Your task to perform on an android device: create a new album in the google photos Image 0: 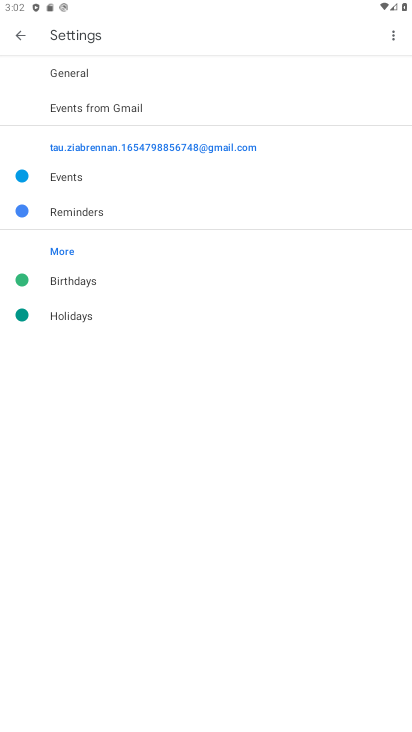
Step 0: click (17, 33)
Your task to perform on an android device: create a new album in the google photos Image 1: 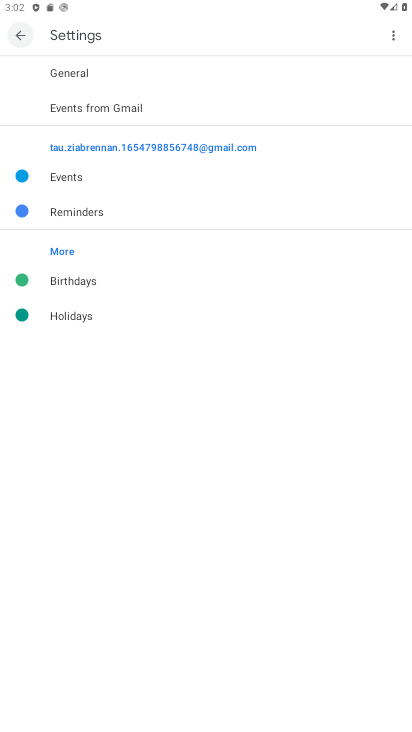
Step 1: click (17, 33)
Your task to perform on an android device: create a new album in the google photos Image 2: 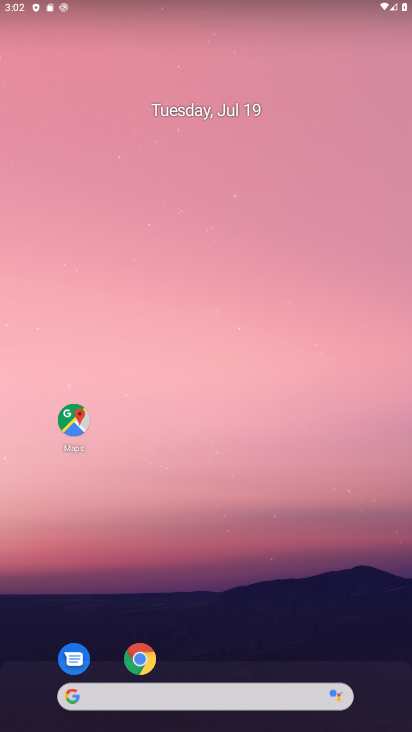
Step 2: drag from (161, 687) to (175, 11)
Your task to perform on an android device: create a new album in the google photos Image 3: 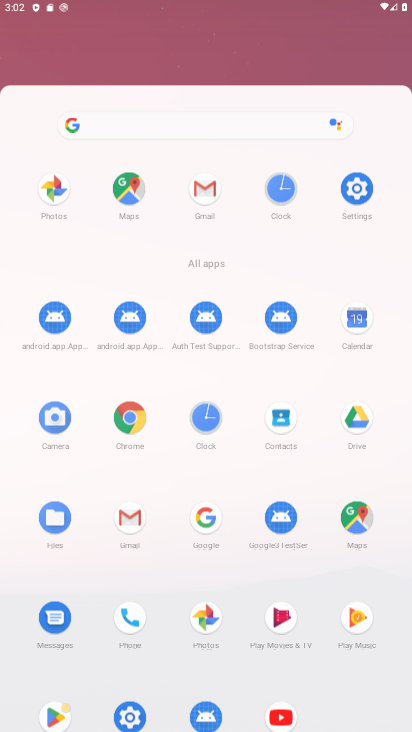
Step 3: drag from (247, 490) to (221, 197)
Your task to perform on an android device: create a new album in the google photos Image 4: 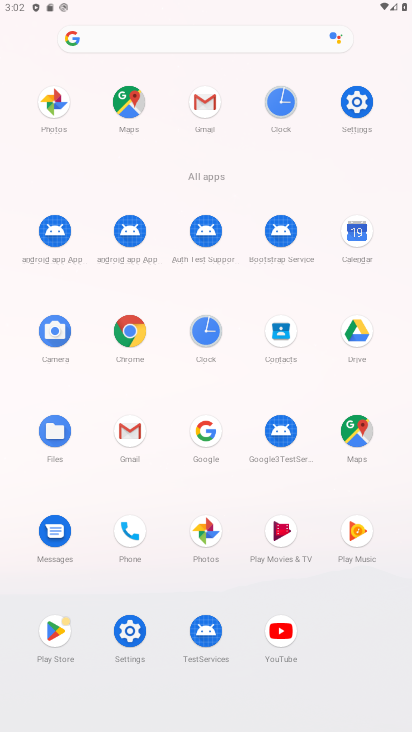
Step 4: drag from (221, 391) to (206, 165)
Your task to perform on an android device: create a new album in the google photos Image 5: 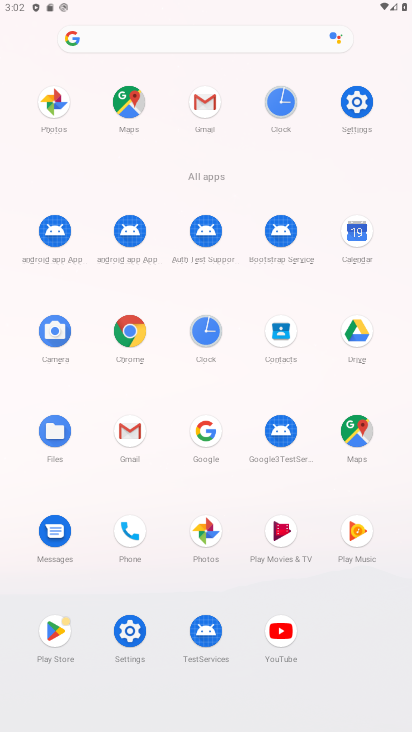
Step 5: click (205, 531)
Your task to perform on an android device: create a new album in the google photos Image 6: 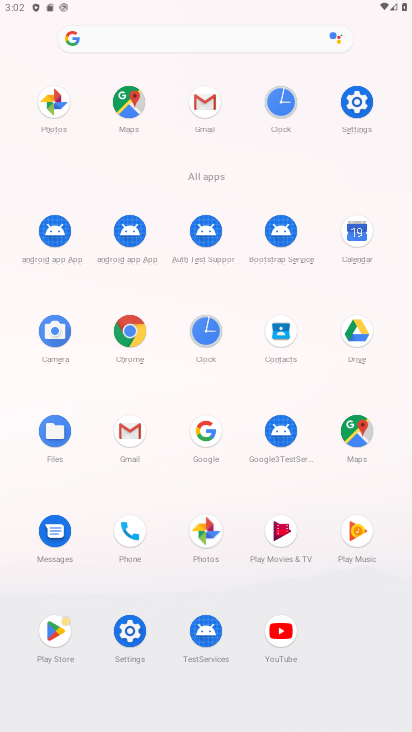
Step 6: click (204, 531)
Your task to perform on an android device: create a new album in the google photos Image 7: 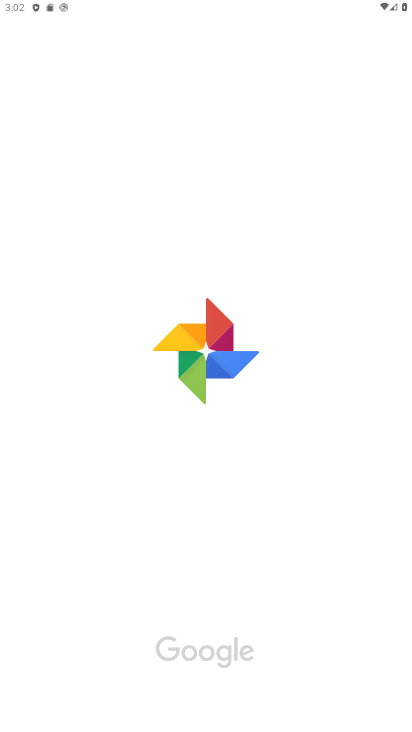
Step 7: click (205, 517)
Your task to perform on an android device: create a new album in the google photos Image 8: 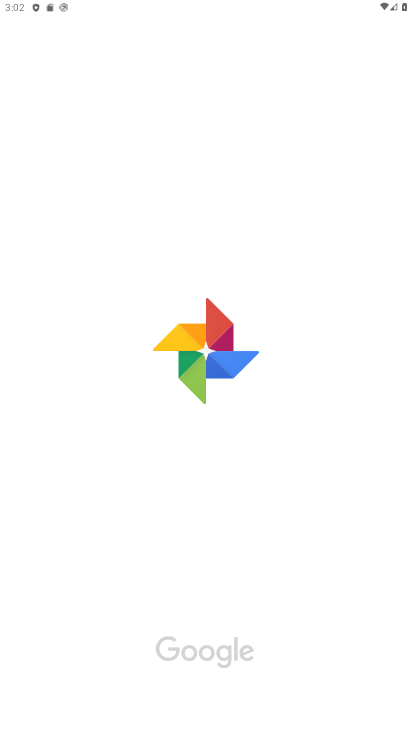
Step 8: click (204, 522)
Your task to perform on an android device: create a new album in the google photos Image 9: 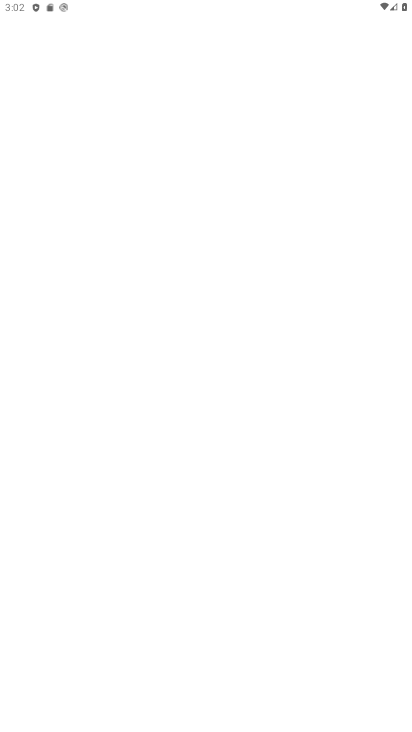
Step 9: click (202, 524)
Your task to perform on an android device: create a new album in the google photos Image 10: 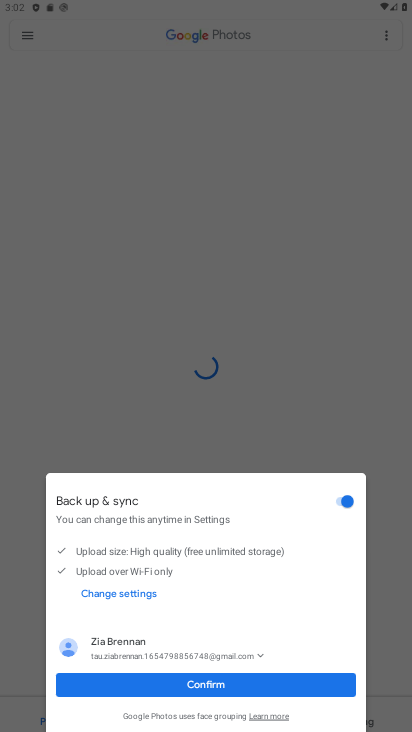
Step 10: click (223, 692)
Your task to perform on an android device: create a new album in the google photos Image 11: 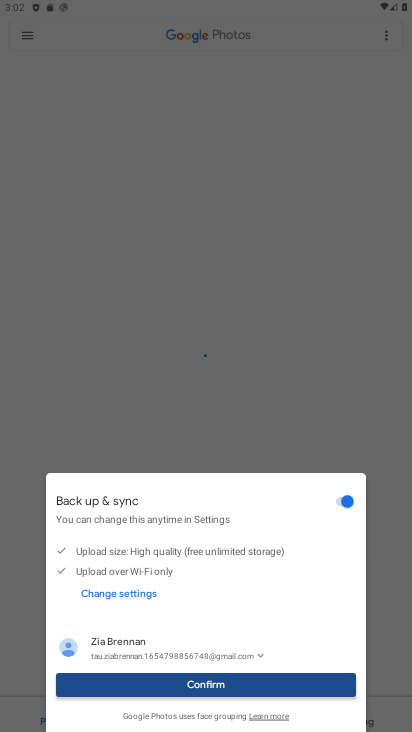
Step 11: click (231, 688)
Your task to perform on an android device: create a new album in the google photos Image 12: 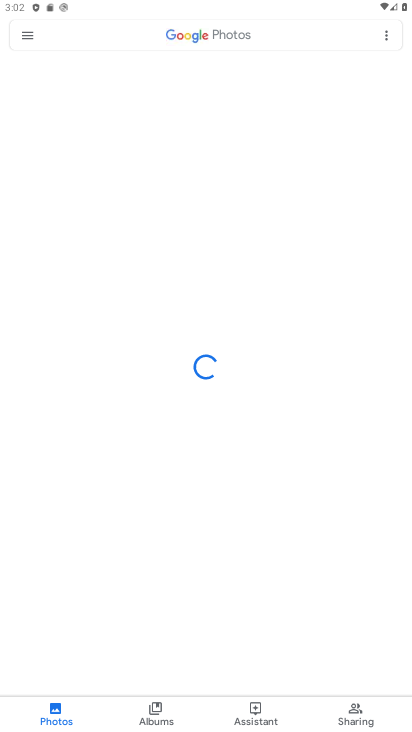
Step 12: click (234, 690)
Your task to perform on an android device: create a new album in the google photos Image 13: 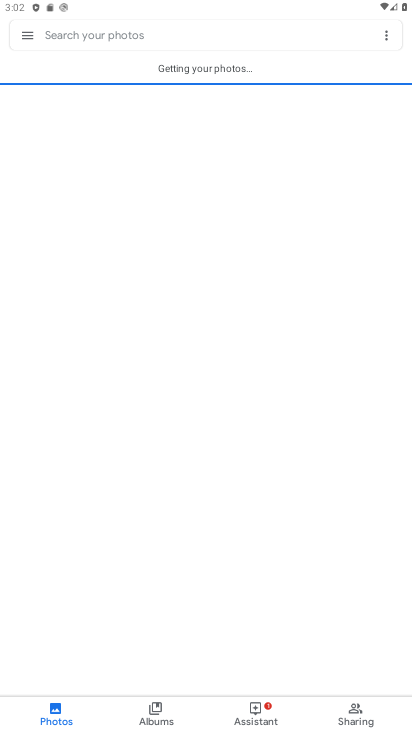
Step 13: click (160, 711)
Your task to perform on an android device: create a new album in the google photos Image 14: 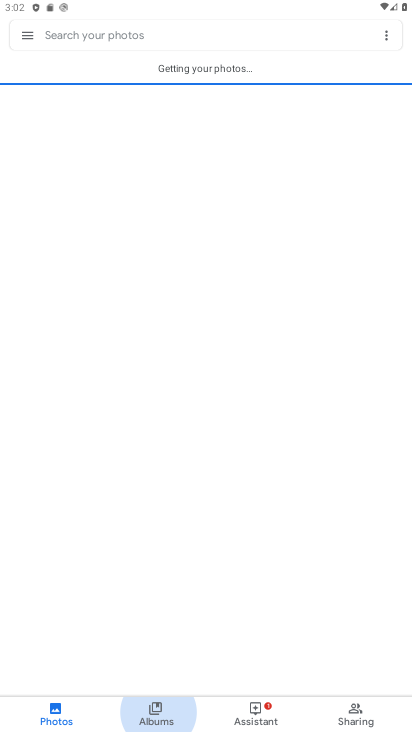
Step 14: click (160, 711)
Your task to perform on an android device: create a new album in the google photos Image 15: 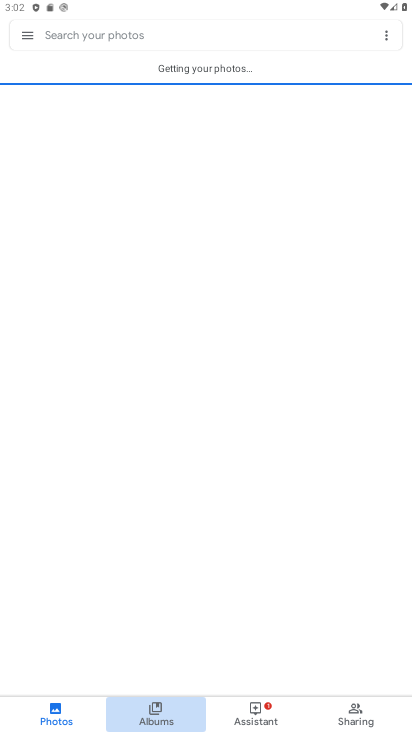
Step 15: click (160, 711)
Your task to perform on an android device: create a new album in the google photos Image 16: 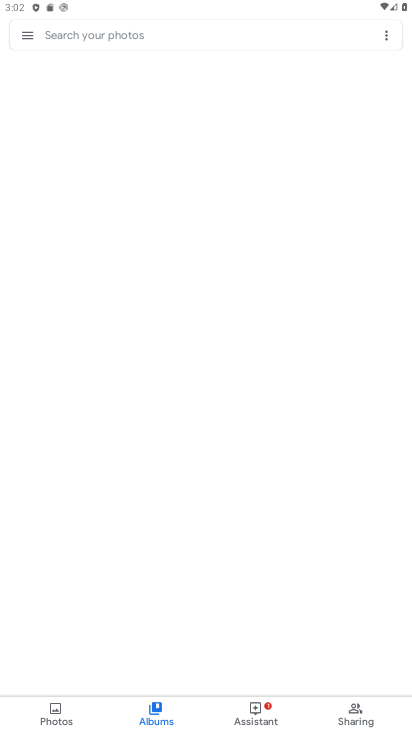
Step 16: click (159, 713)
Your task to perform on an android device: create a new album in the google photos Image 17: 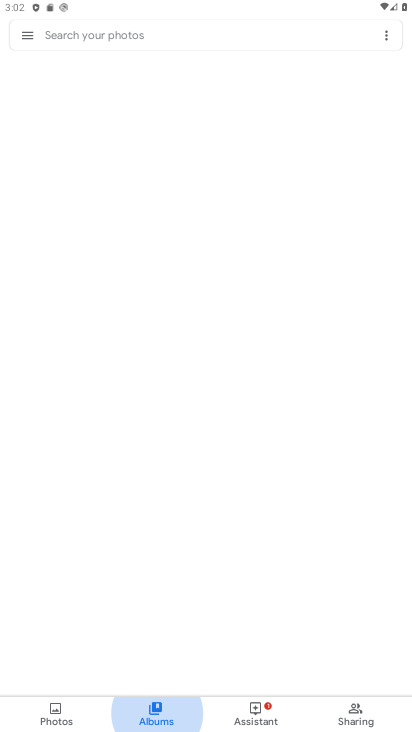
Step 17: click (160, 714)
Your task to perform on an android device: create a new album in the google photos Image 18: 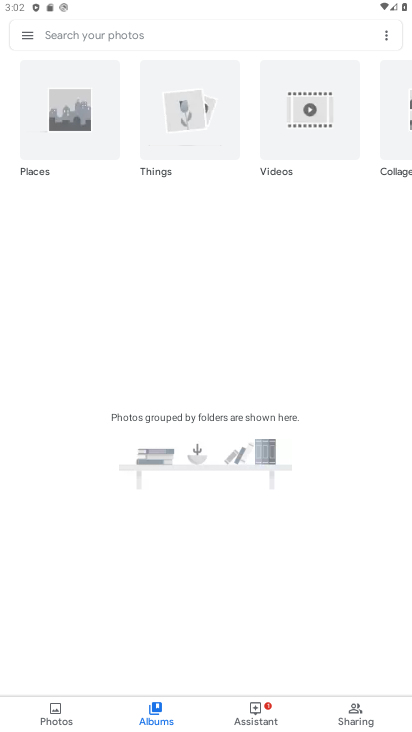
Step 18: click (155, 714)
Your task to perform on an android device: create a new album in the google photos Image 19: 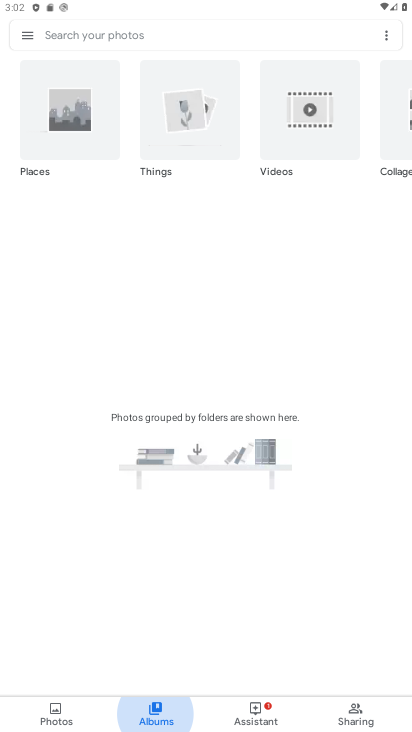
Step 19: click (162, 720)
Your task to perform on an android device: create a new album in the google photos Image 20: 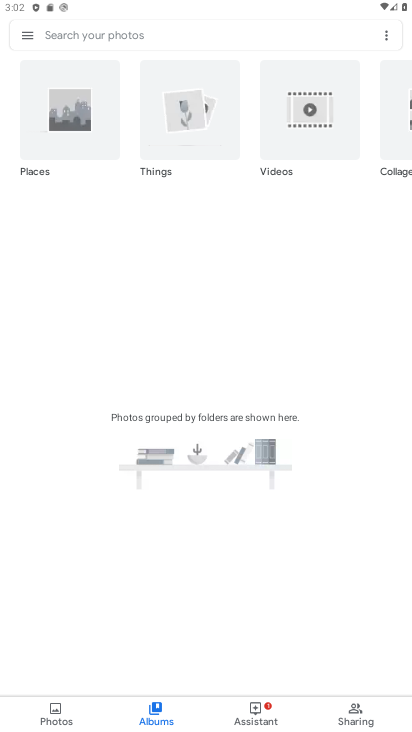
Step 20: drag from (385, 33) to (386, 155)
Your task to perform on an android device: create a new album in the google photos Image 21: 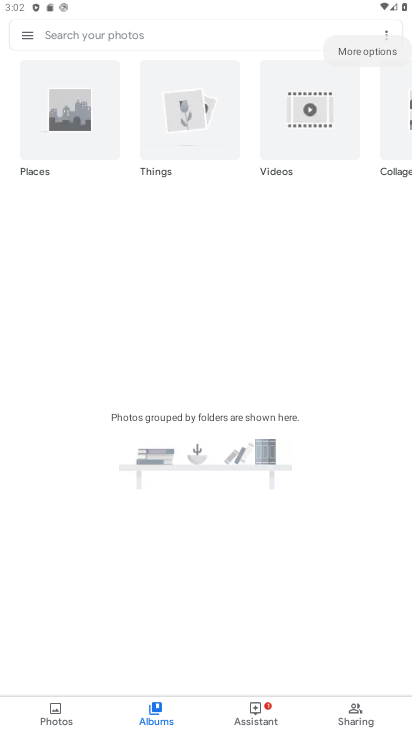
Step 21: click (384, 30)
Your task to perform on an android device: create a new album in the google photos Image 22: 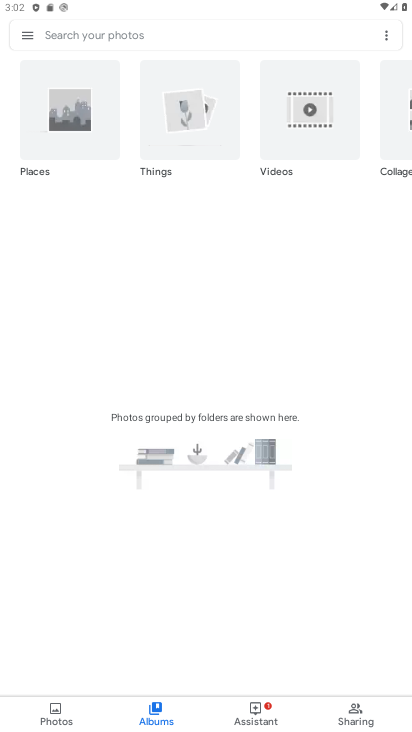
Step 22: click (384, 32)
Your task to perform on an android device: create a new album in the google photos Image 23: 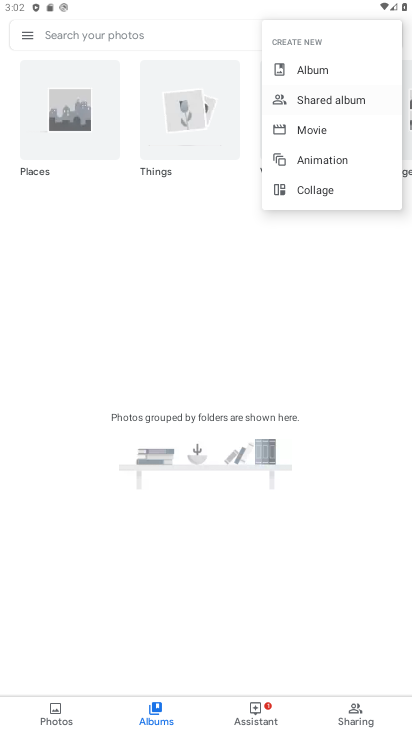
Step 23: click (384, 33)
Your task to perform on an android device: create a new album in the google photos Image 24: 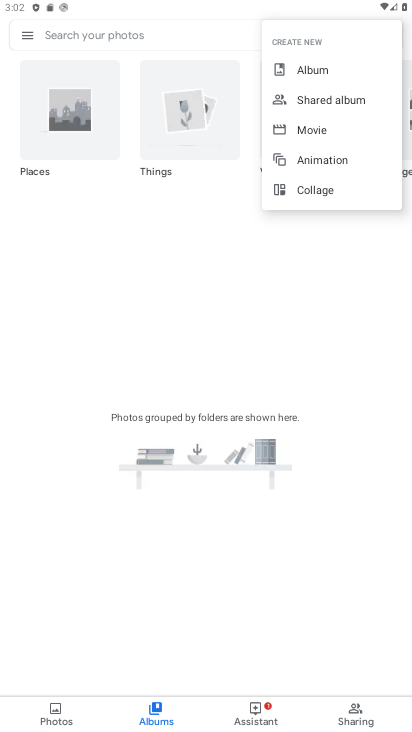
Step 24: click (384, 34)
Your task to perform on an android device: create a new album in the google photos Image 25: 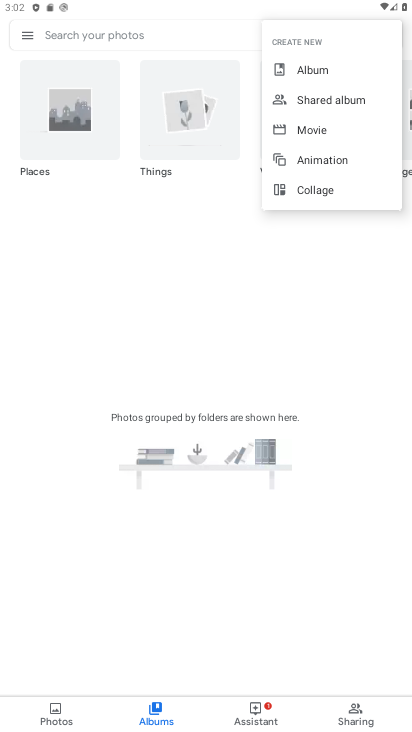
Step 25: click (309, 59)
Your task to perform on an android device: create a new album in the google photos Image 26: 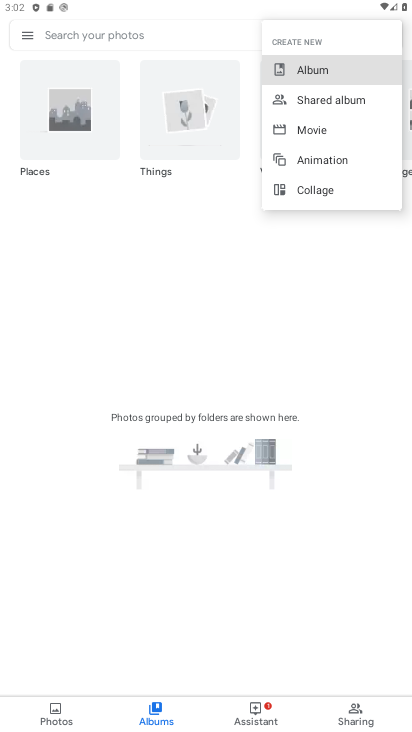
Step 26: click (309, 64)
Your task to perform on an android device: create a new album in the google photos Image 27: 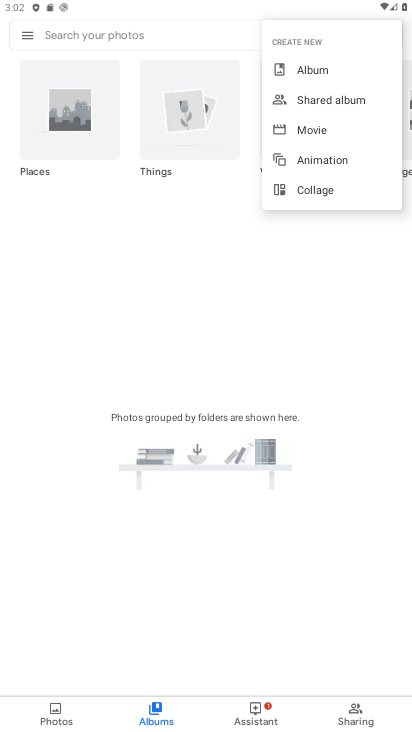
Step 27: click (309, 64)
Your task to perform on an android device: create a new album in the google photos Image 28: 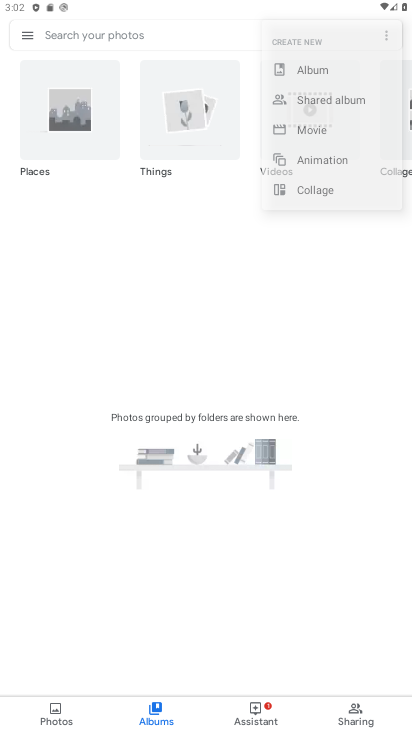
Step 28: click (310, 65)
Your task to perform on an android device: create a new album in the google photos Image 29: 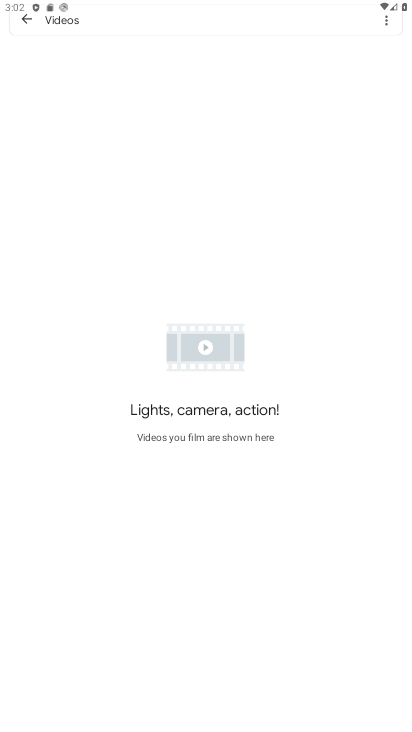
Step 29: click (220, 428)
Your task to perform on an android device: create a new album in the google photos Image 30: 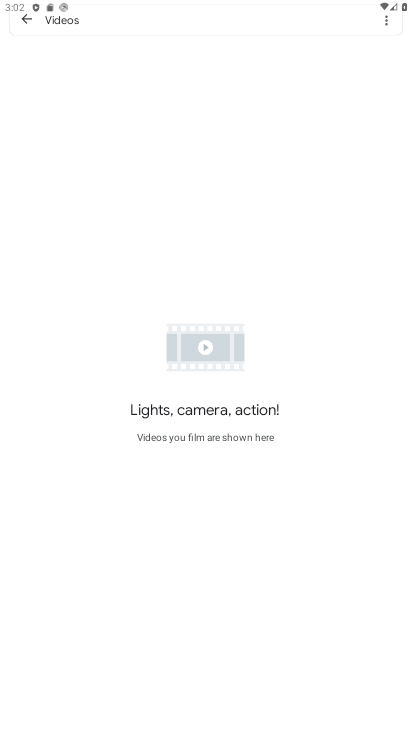
Step 30: click (217, 439)
Your task to perform on an android device: create a new album in the google photos Image 31: 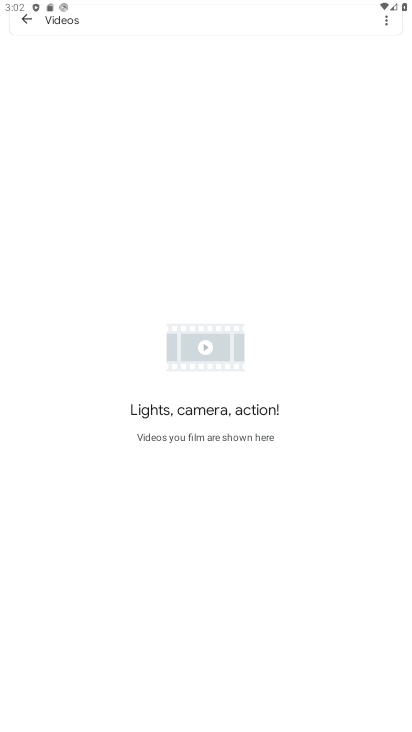
Step 31: click (21, 8)
Your task to perform on an android device: create a new album in the google photos Image 32: 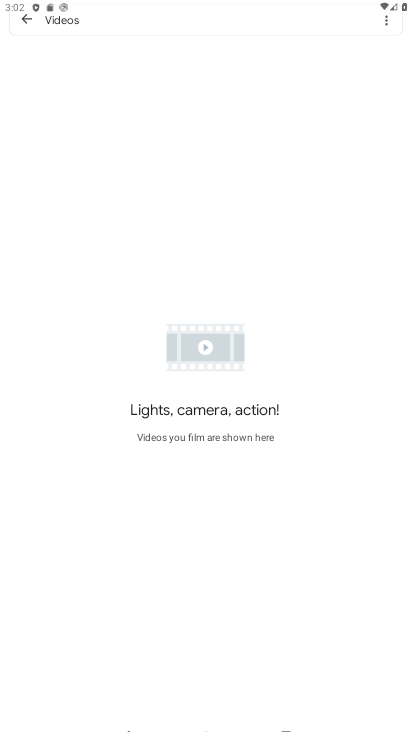
Step 32: click (26, 20)
Your task to perform on an android device: create a new album in the google photos Image 33: 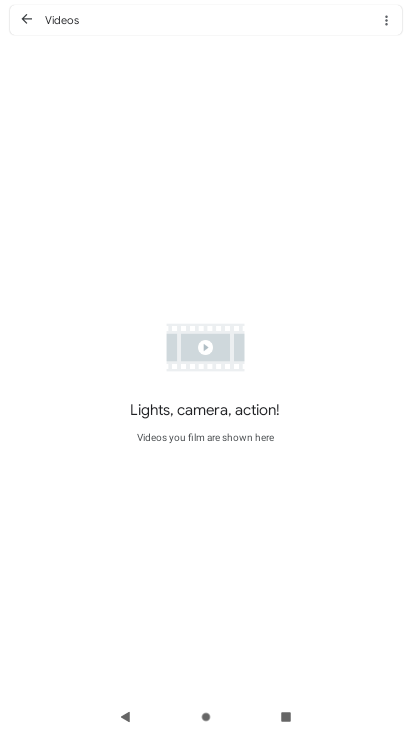
Step 33: click (26, 20)
Your task to perform on an android device: create a new album in the google photos Image 34: 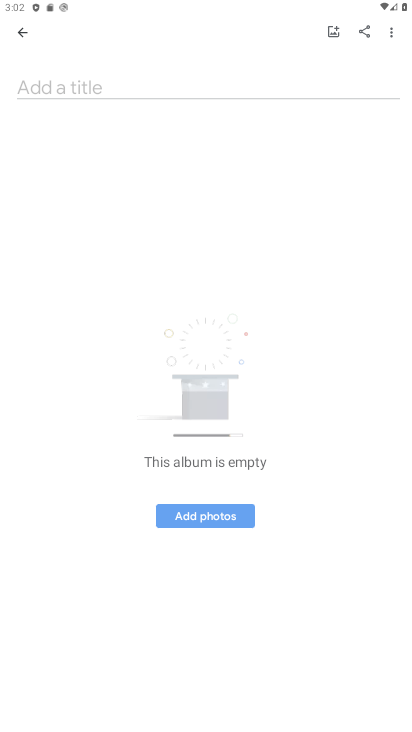
Step 34: click (390, 17)
Your task to perform on an android device: create a new album in the google photos Image 35: 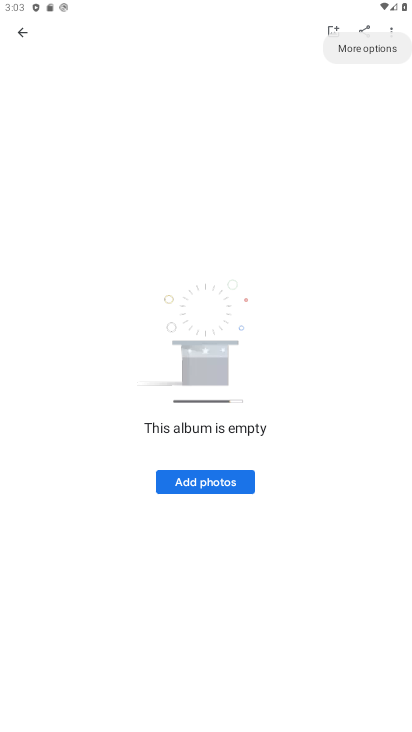
Step 35: click (390, 17)
Your task to perform on an android device: create a new album in the google photos Image 36: 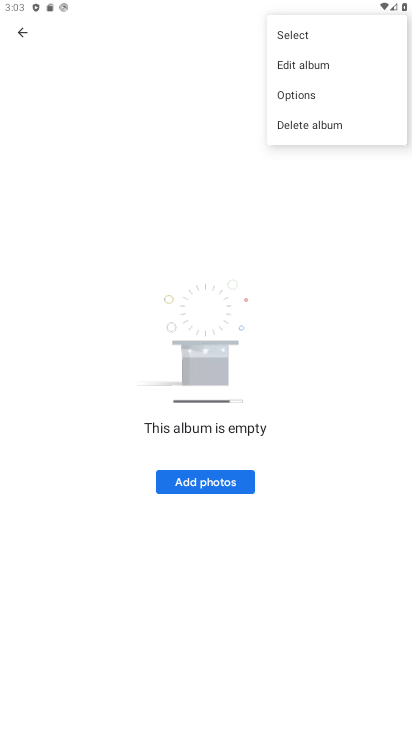
Step 36: click (205, 479)
Your task to perform on an android device: create a new album in the google photos Image 37: 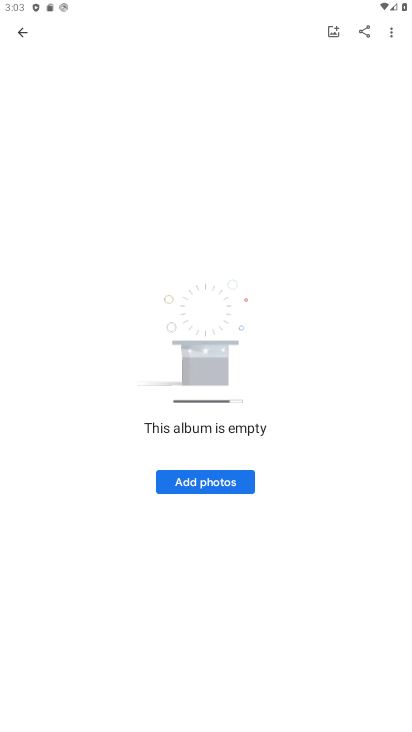
Step 37: click (206, 469)
Your task to perform on an android device: create a new album in the google photos Image 38: 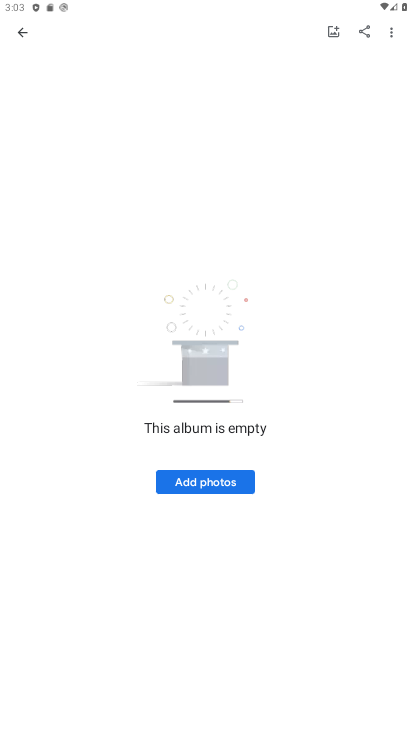
Step 38: click (207, 465)
Your task to perform on an android device: create a new album in the google photos Image 39: 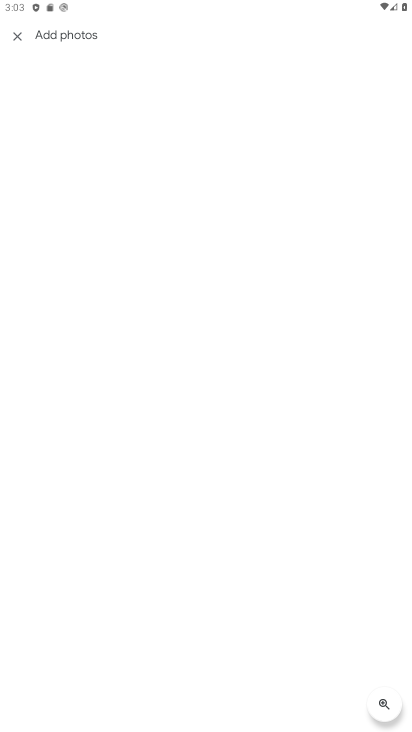
Step 39: task complete